Your task to perform on an android device: Open Wikipedia Image 0: 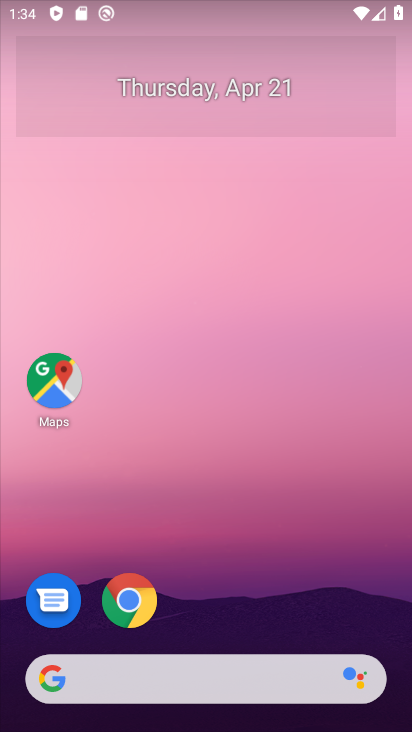
Step 0: drag from (293, 532) to (351, 93)
Your task to perform on an android device: Open Wikipedia Image 1: 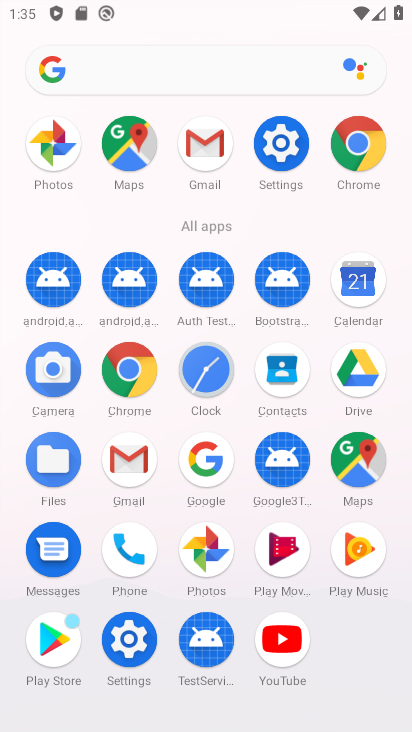
Step 1: click (353, 142)
Your task to perform on an android device: Open Wikipedia Image 2: 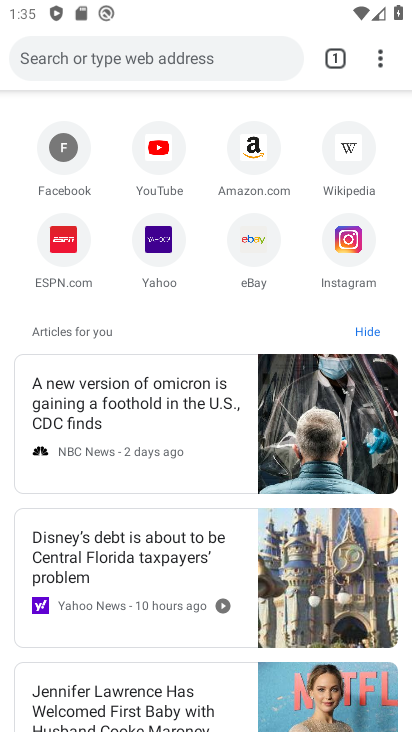
Step 2: click (341, 149)
Your task to perform on an android device: Open Wikipedia Image 3: 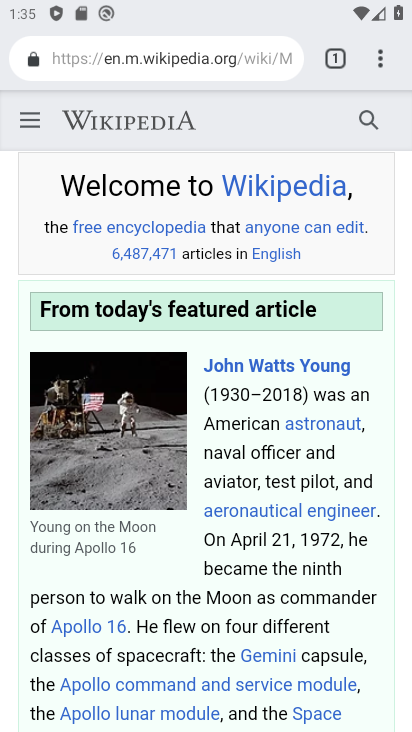
Step 3: task complete